Your task to perform on an android device: View the shopping cart on target. Search for "macbook pro 15 inch" on target, select the first entry, and add it to the cart. Image 0: 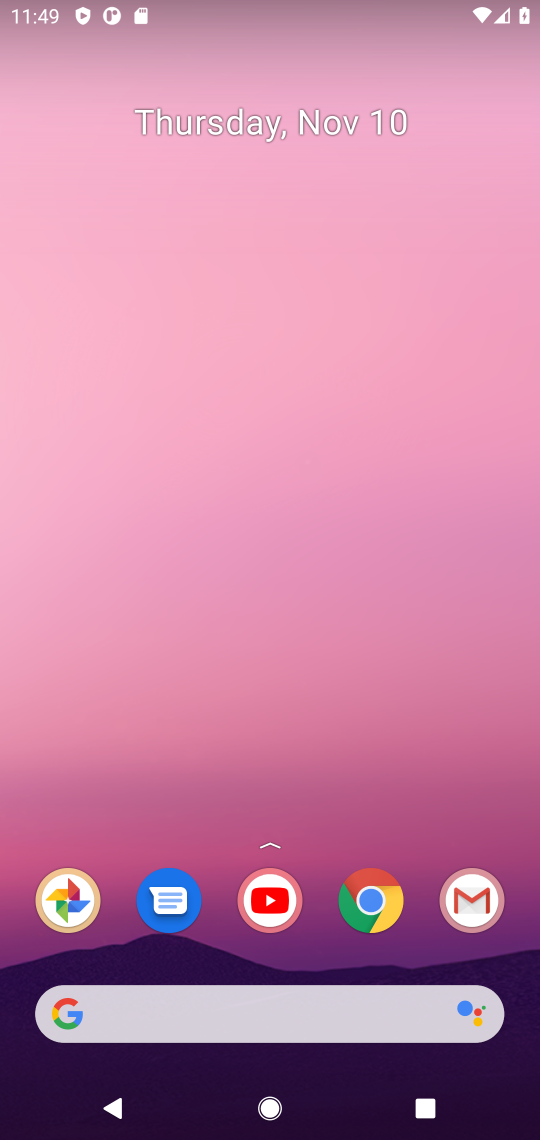
Step 0: click (372, 903)
Your task to perform on an android device: View the shopping cart on target. Search for "macbook pro 15 inch" on target, select the first entry, and add it to the cart. Image 1: 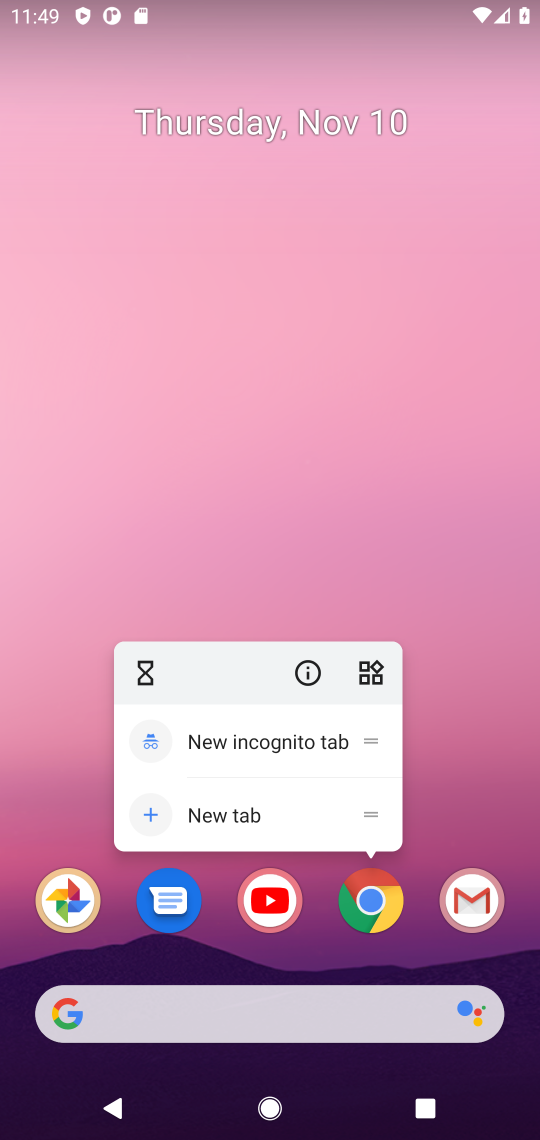
Step 1: click (372, 906)
Your task to perform on an android device: View the shopping cart on target. Search for "macbook pro 15 inch" on target, select the first entry, and add it to the cart. Image 2: 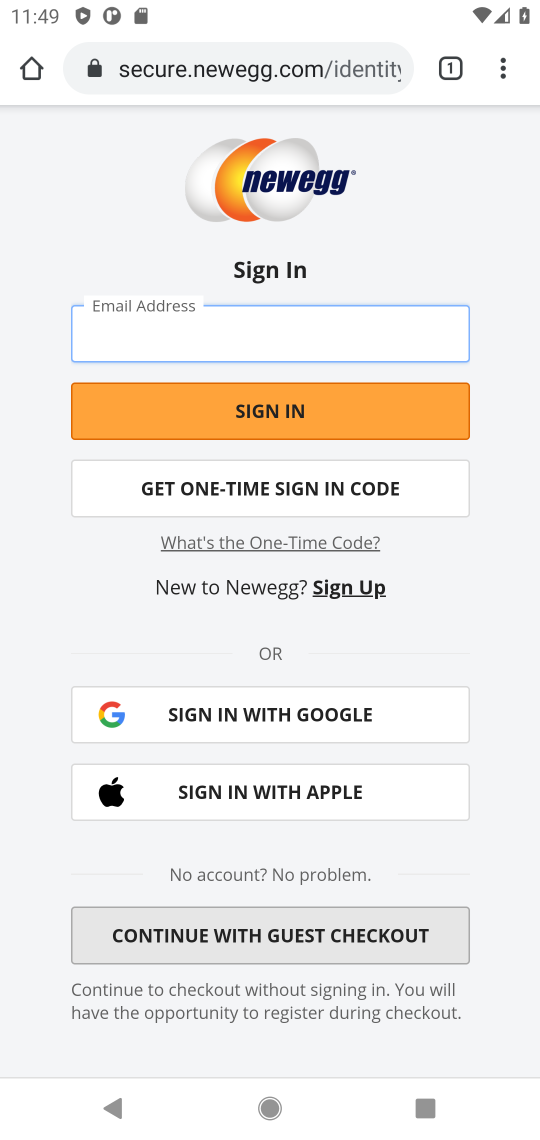
Step 2: click (358, 60)
Your task to perform on an android device: View the shopping cart on target. Search for "macbook pro 15 inch" on target, select the first entry, and add it to the cart. Image 3: 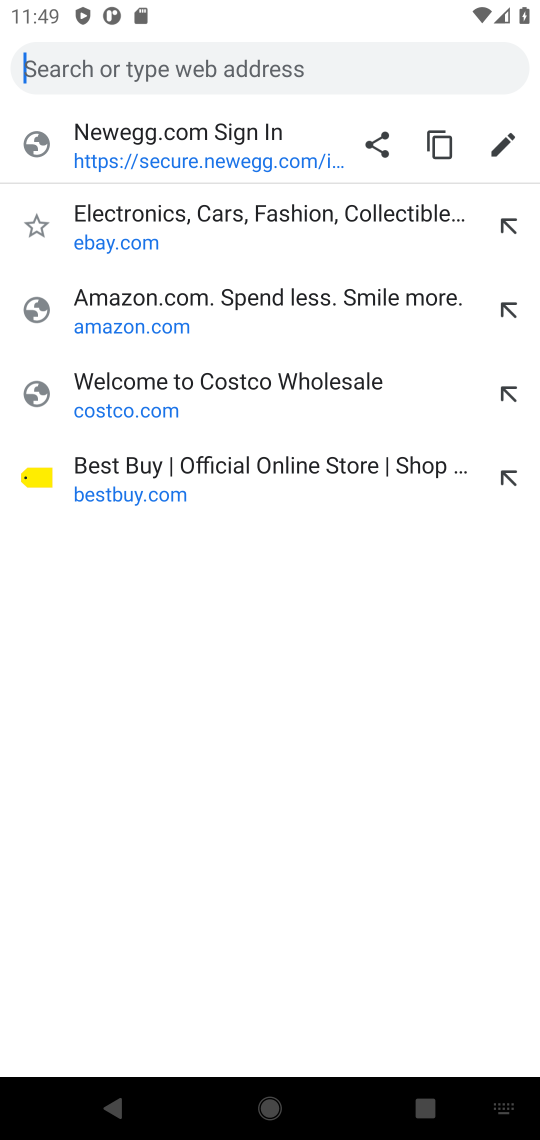
Step 3: press enter
Your task to perform on an android device: View the shopping cart on target. Search for "macbook pro 15 inch" on target, select the first entry, and add it to the cart. Image 4: 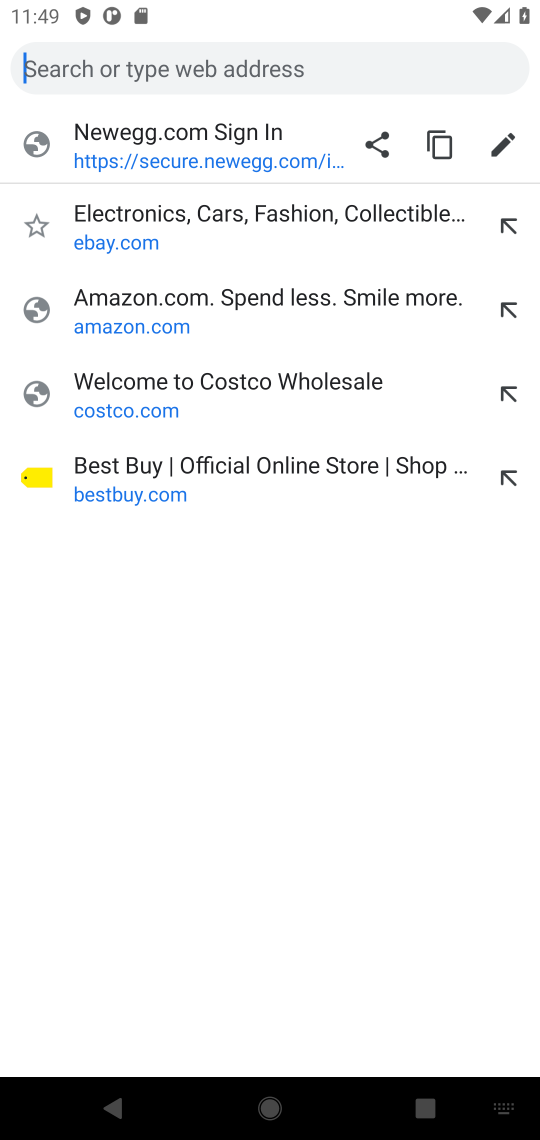
Step 4: type " target"
Your task to perform on an android device: View the shopping cart on target. Search for "macbook pro 15 inch" on target, select the first entry, and add it to the cart. Image 5: 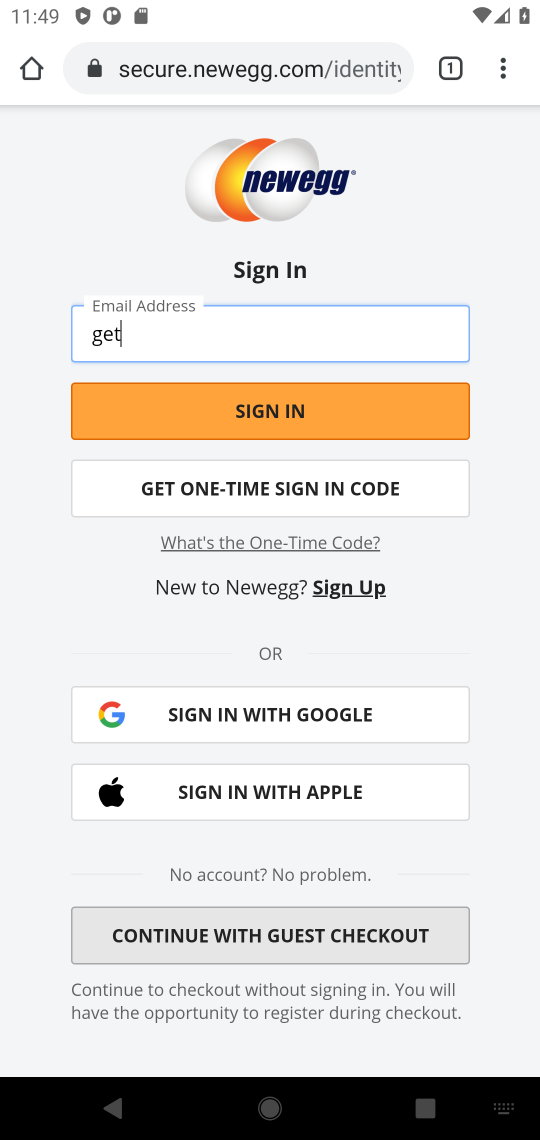
Step 5: click (242, 69)
Your task to perform on an android device: View the shopping cart on target. Search for "macbook pro 15 inch" on target, select the first entry, and add it to the cart. Image 6: 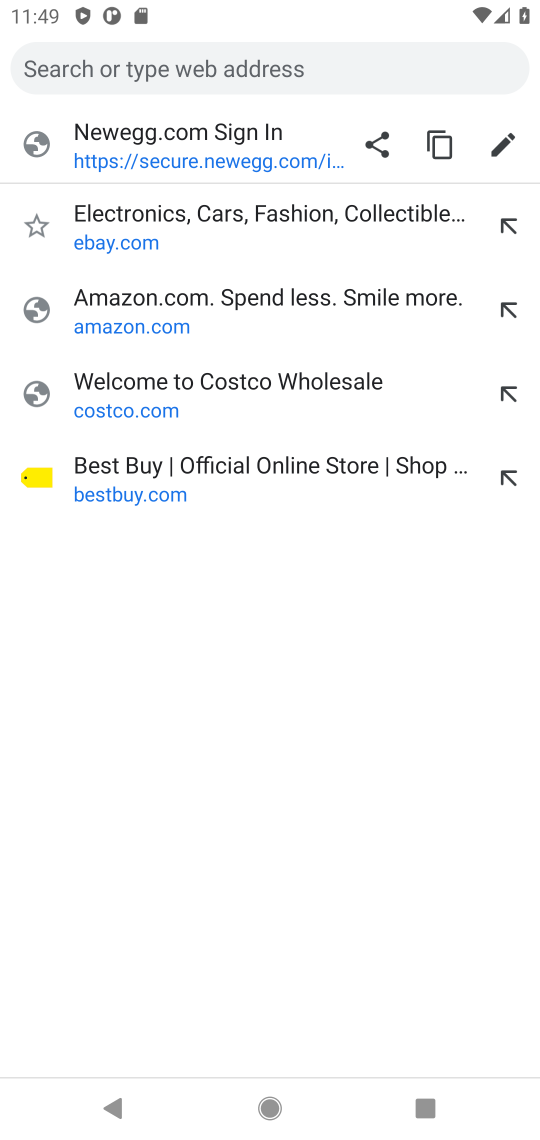
Step 6: type " target"
Your task to perform on an android device: View the shopping cart on target. Search for "macbook pro 15 inch" on target, select the first entry, and add it to the cart. Image 7: 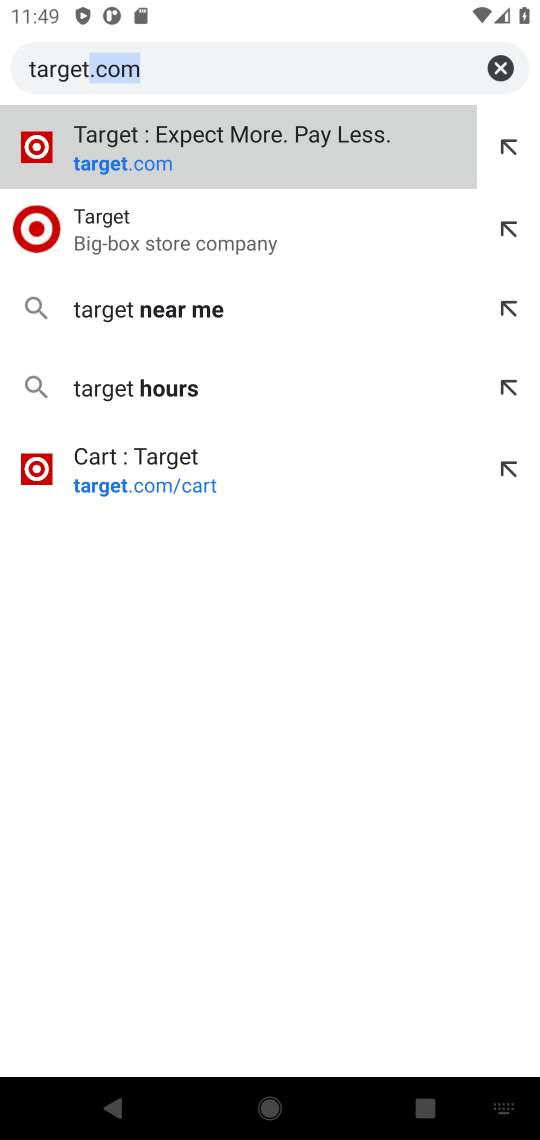
Step 7: press enter
Your task to perform on an android device: View the shopping cart on target. Search for "macbook pro 15 inch" on target, select the first entry, and add it to the cart. Image 8: 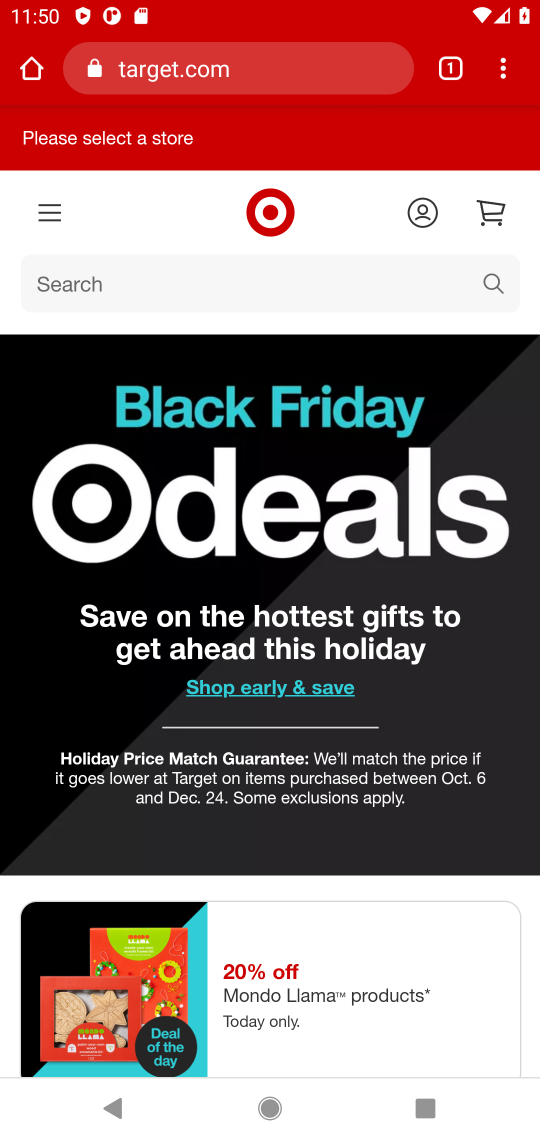
Step 8: click (126, 279)
Your task to perform on an android device: View the shopping cart on target. Search for "macbook pro 15 inch" on target, select the first entry, and add it to the cart. Image 9: 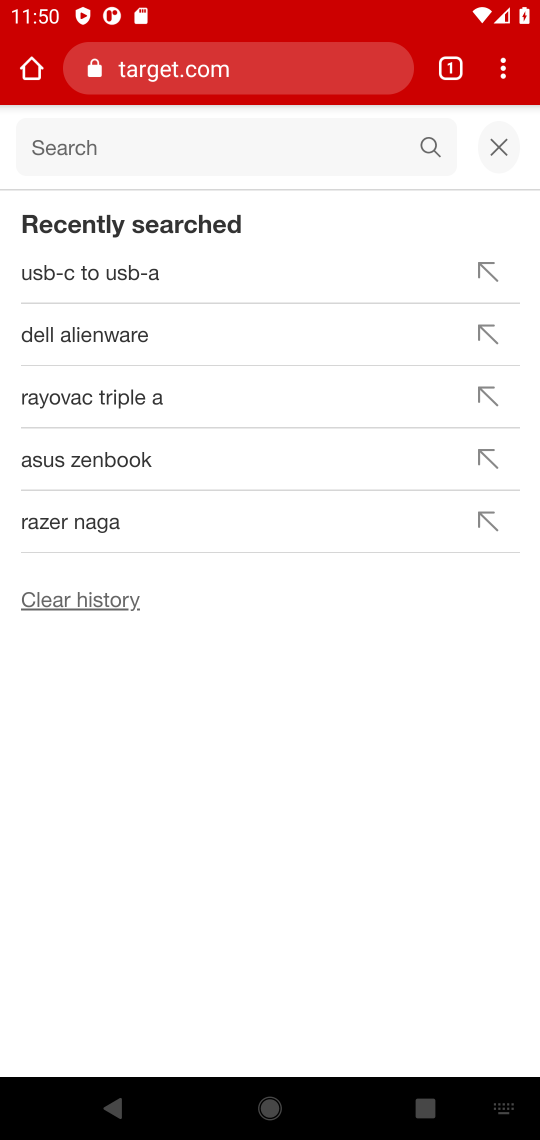
Step 9: press enter
Your task to perform on an android device: View the shopping cart on target. Search for "macbook pro 15 inch" on target, select the first entry, and add it to the cart. Image 10: 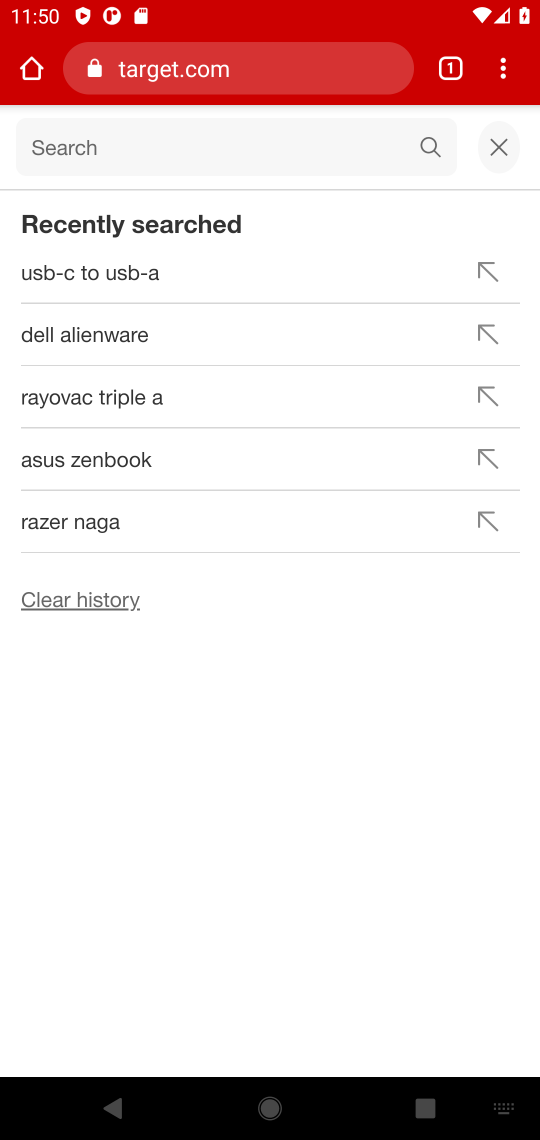
Step 10: type "macbook pro 15 inch"
Your task to perform on an android device: View the shopping cart on target. Search for "macbook pro 15 inch" on target, select the first entry, and add it to the cart. Image 11: 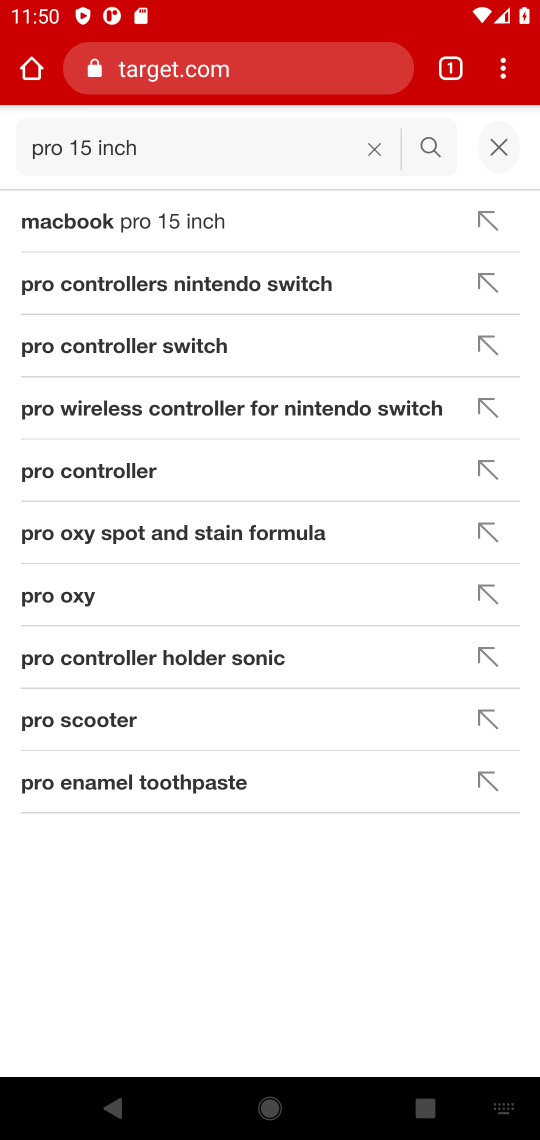
Step 11: click (208, 235)
Your task to perform on an android device: View the shopping cart on target. Search for "macbook pro 15 inch" on target, select the first entry, and add it to the cart. Image 12: 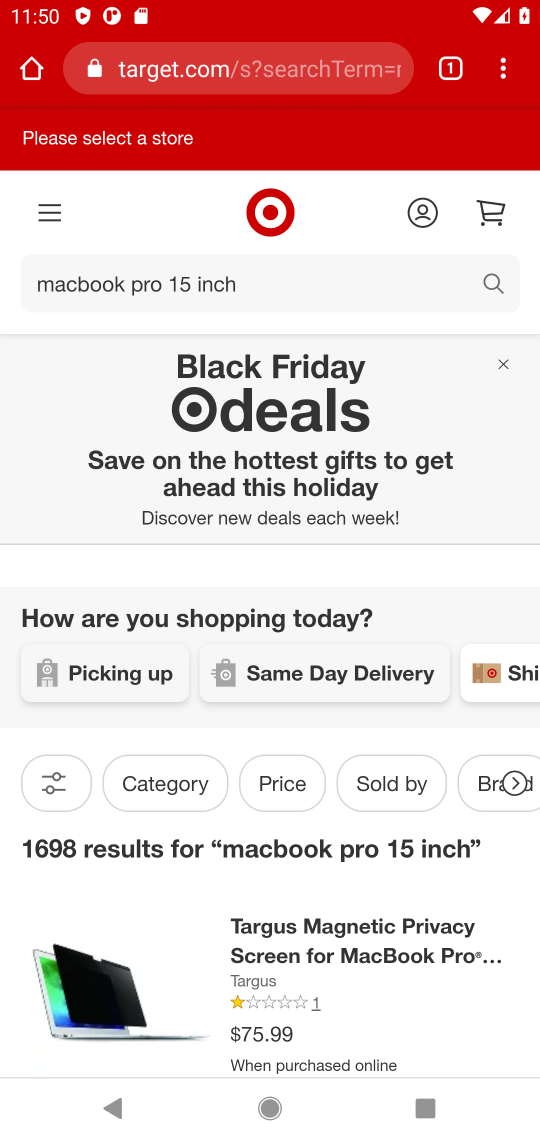
Step 12: click (300, 962)
Your task to perform on an android device: View the shopping cart on target. Search for "macbook pro 15 inch" on target, select the first entry, and add it to the cart. Image 13: 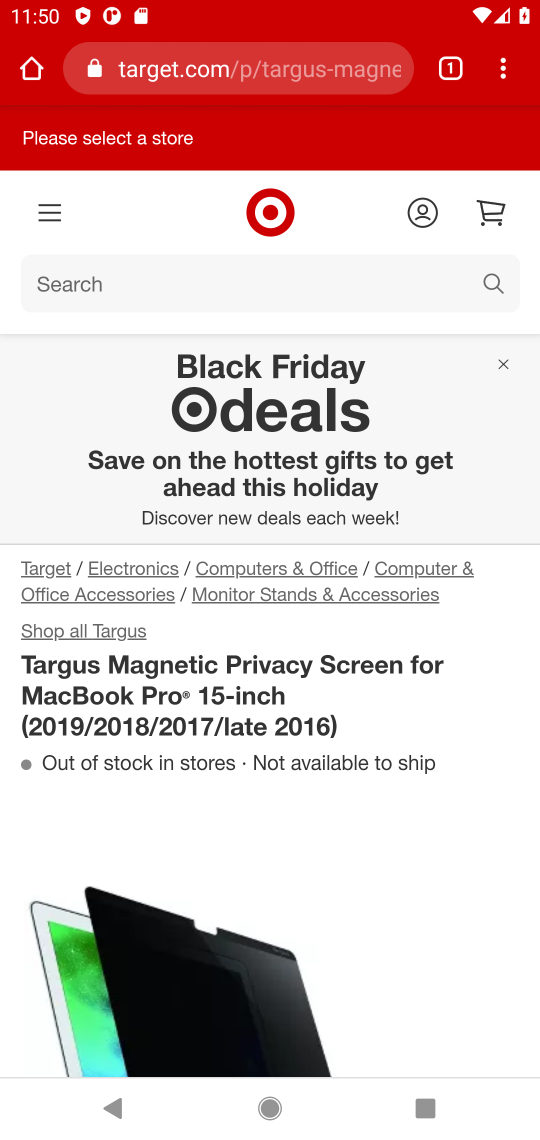
Step 13: drag from (297, 956) to (322, 745)
Your task to perform on an android device: View the shopping cart on target. Search for "macbook pro 15 inch" on target, select the first entry, and add it to the cart. Image 14: 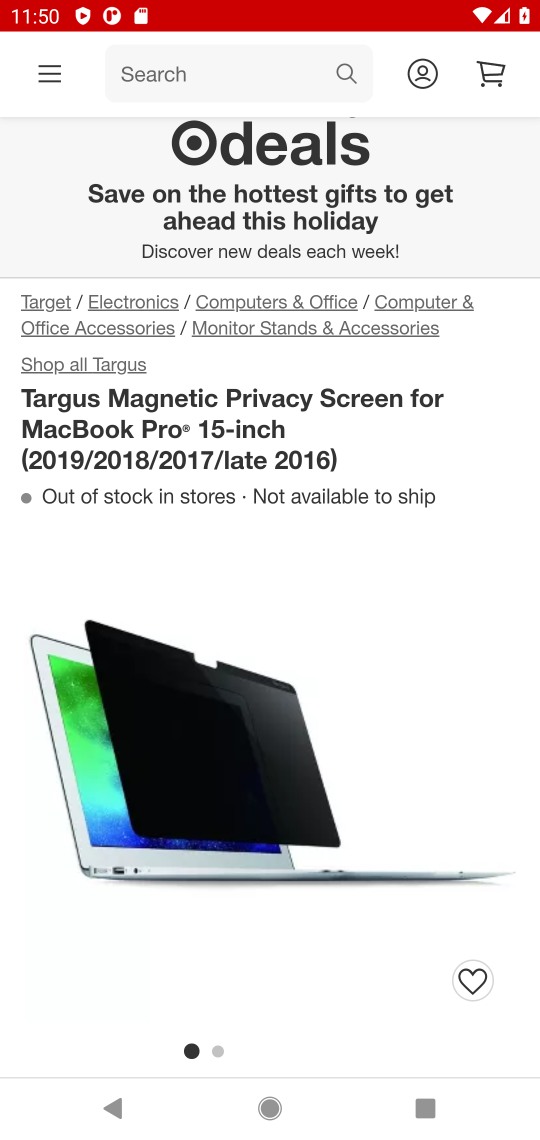
Step 14: drag from (386, 785) to (500, 257)
Your task to perform on an android device: View the shopping cart on target. Search for "macbook pro 15 inch" on target, select the first entry, and add it to the cart. Image 15: 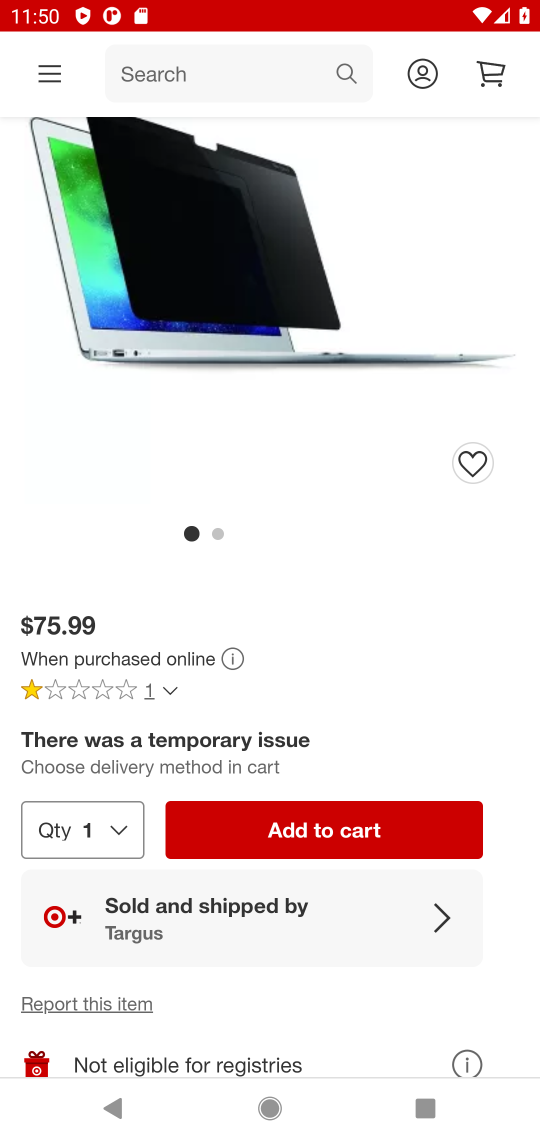
Step 15: click (337, 826)
Your task to perform on an android device: View the shopping cart on target. Search for "macbook pro 15 inch" on target, select the first entry, and add it to the cart. Image 16: 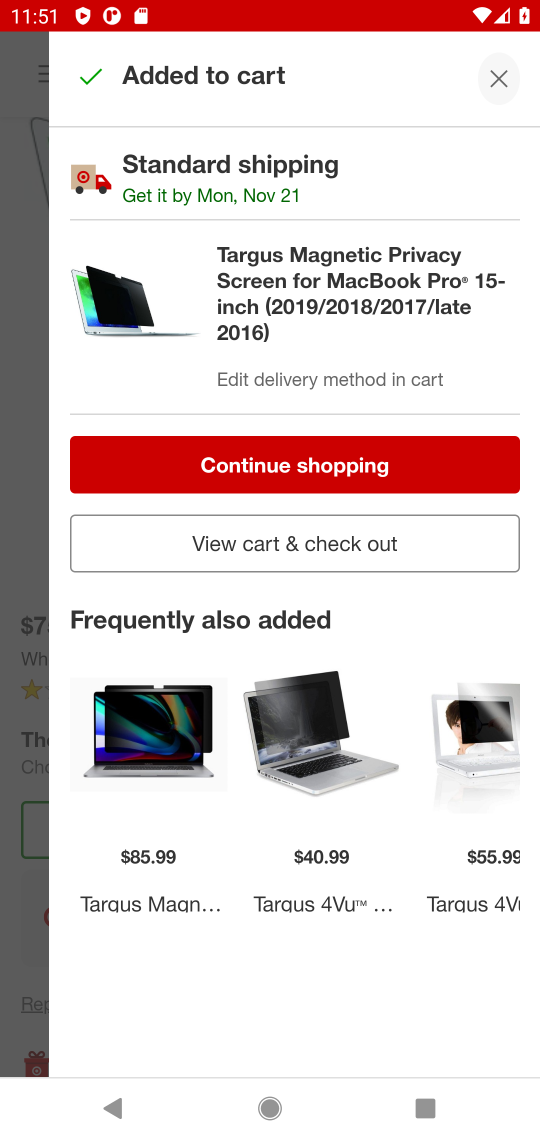
Step 16: click (360, 542)
Your task to perform on an android device: View the shopping cart on target. Search for "macbook pro 15 inch" on target, select the first entry, and add it to the cart. Image 17: 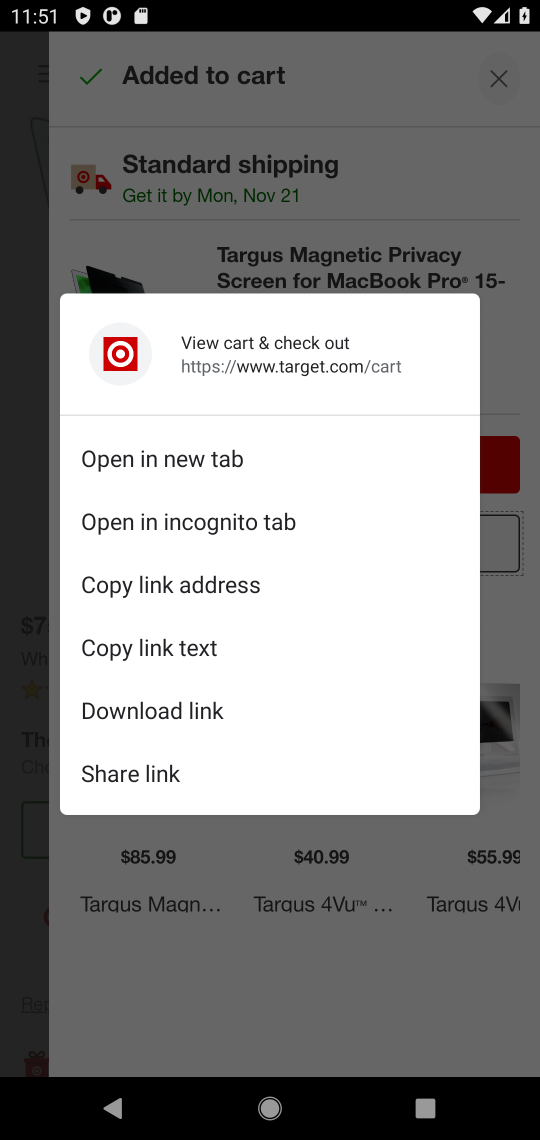
Step 17: click (501, 548)
Your task to perform on an android device: View the shopping cart on target. Search for "macbook pro 15 inch" on target, select the first entry, and add it to the cart. Image 18: 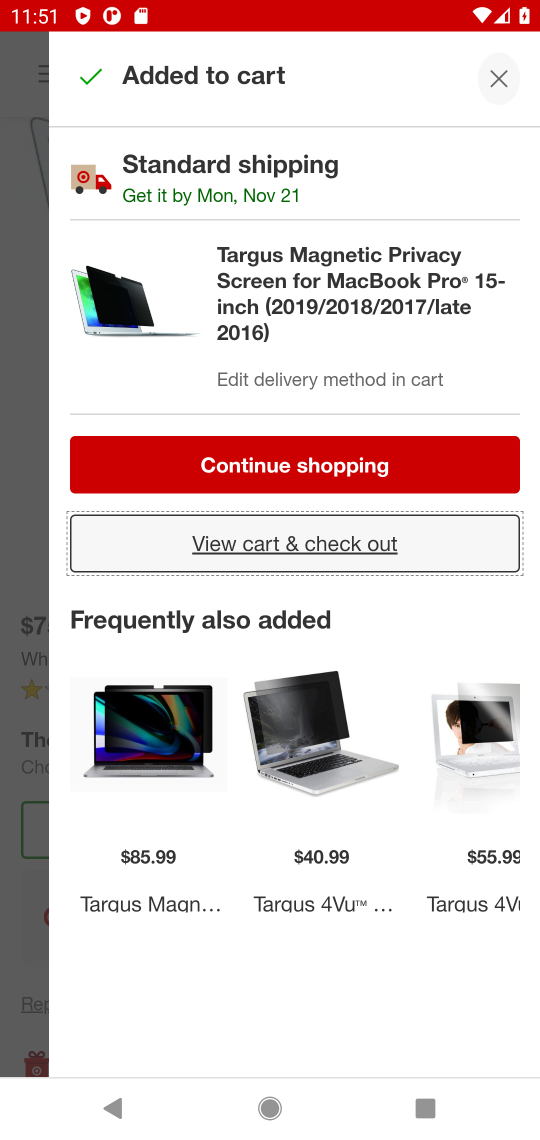
Step 18: click (263, 541)
Your task to perform on an android device: View the shopping cart on target. Search for "macbook pro 15 inch" on target, select the first entry, and add it to the cart. Image 19: 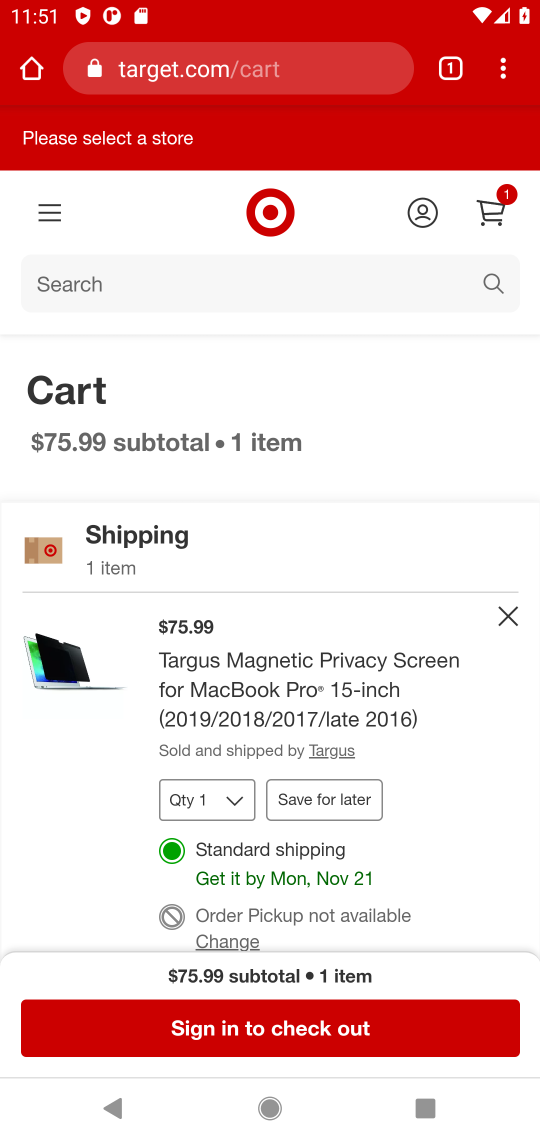
Step 19: task complete